Your task to perform on an android device: Open Android settings Image 0: 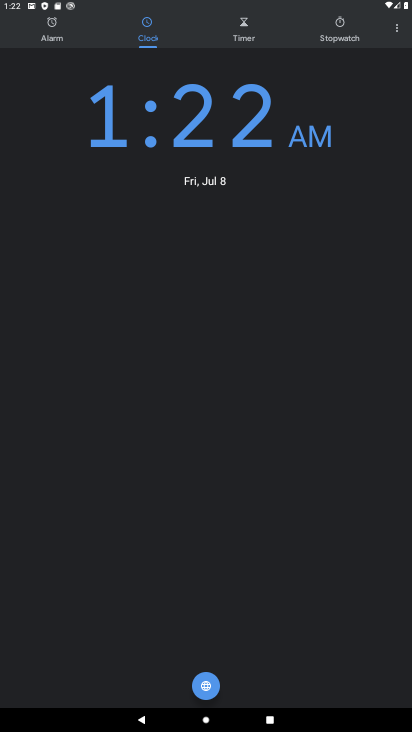
Step 0: press home button
Your task to perform on an android device: Open Android settings Image 1: 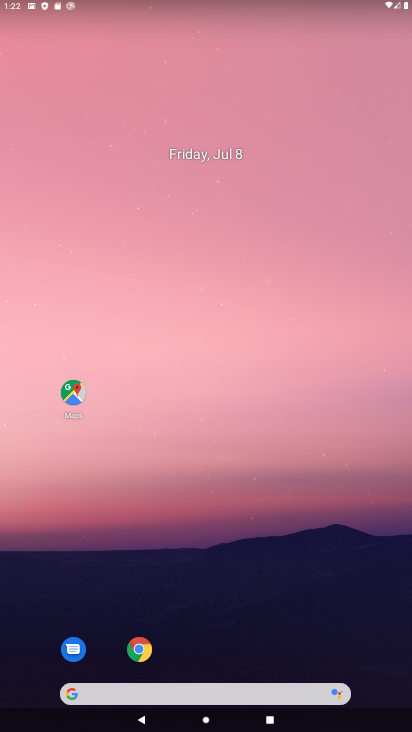
Step 1: drag from (282, 570) to (248, 120)
Your task to perform on an android device: Open Android settings Image 2: 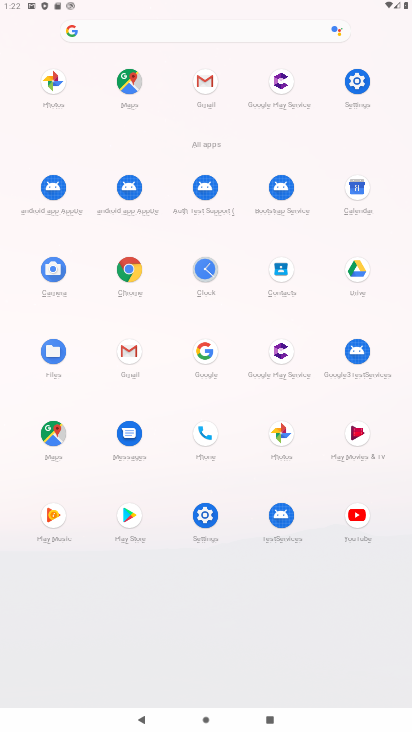
Step 2: click (357, 82)
Your task to perform on an android device: Open Android settings Image 3: 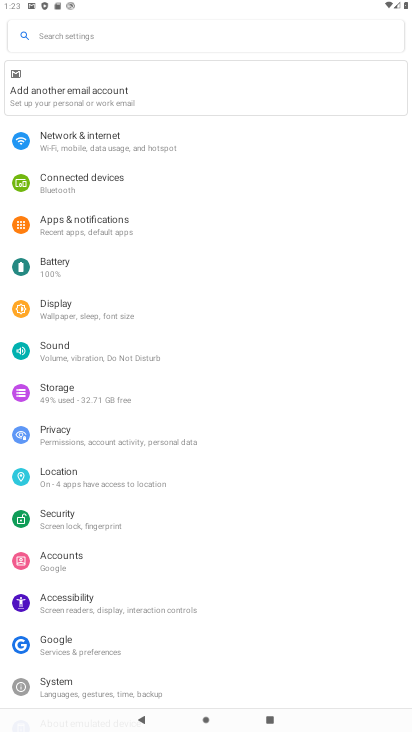
Step 3: task complete